Your task to perform on an android device: Show me the alarms in the clock app Image 0: 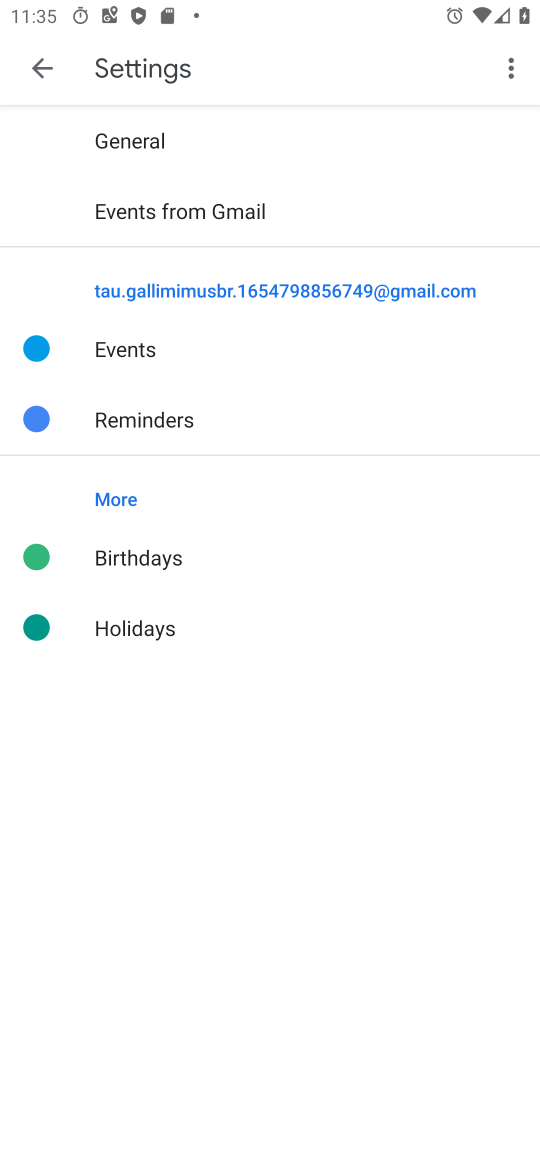
Step 0: press home button
Your task to perform on an android device: Show me the alarms in the clock app Image 1: 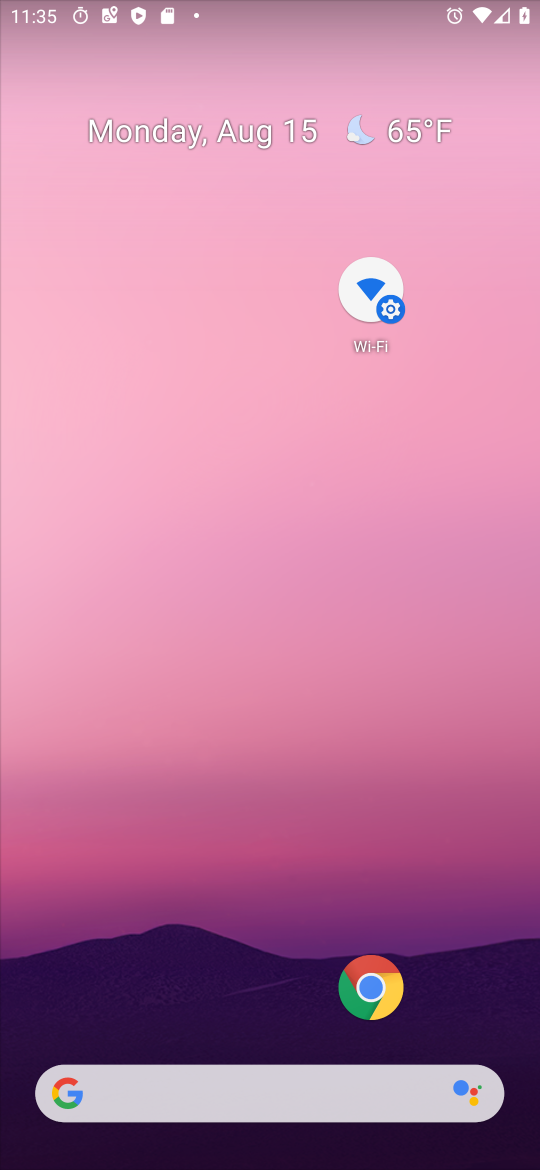
Step 1: drag from (349, 1069) to (250, 158)
Your task to perform on an android device: Show me the alarms in the clock app Image 2: 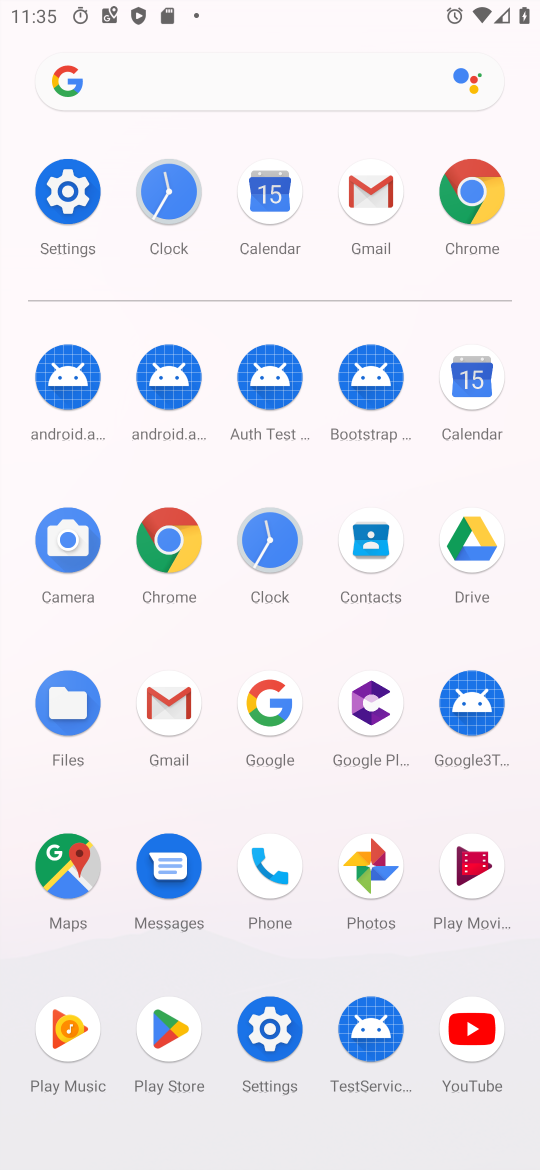
Step 2: click (254, 529)
Your task to perform on an android device: Show me the alarms in the clock app Image 3: 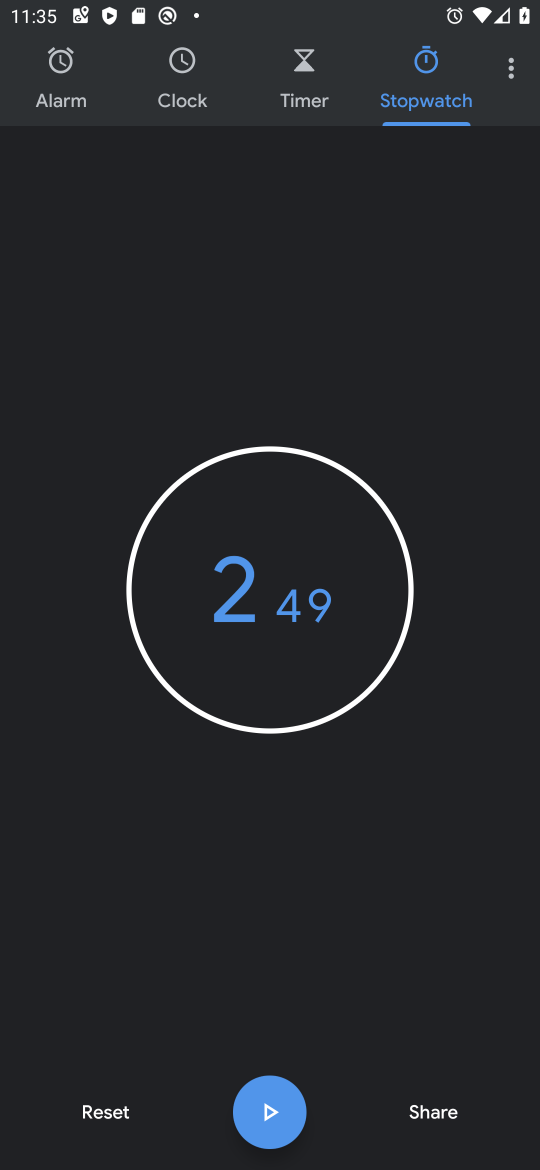
Step 3: click (169, 75)
Your task to perform on an android device: Show me the alarms in the clock app Image 4: 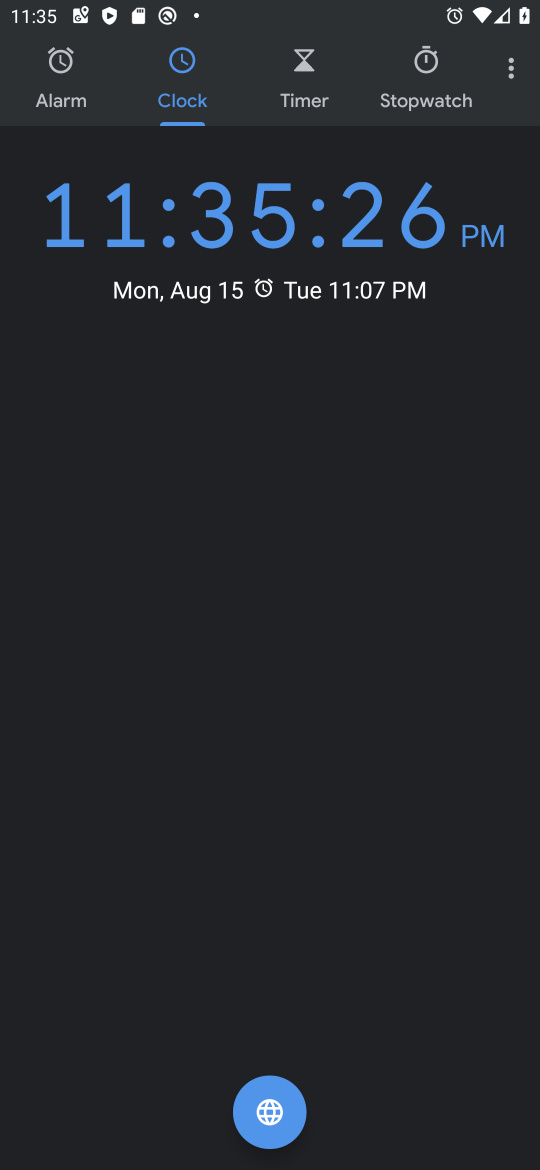
Step 4: click (71, 85)
Your task to perform on an android device: Show me the alarms in the clock app Image 5: 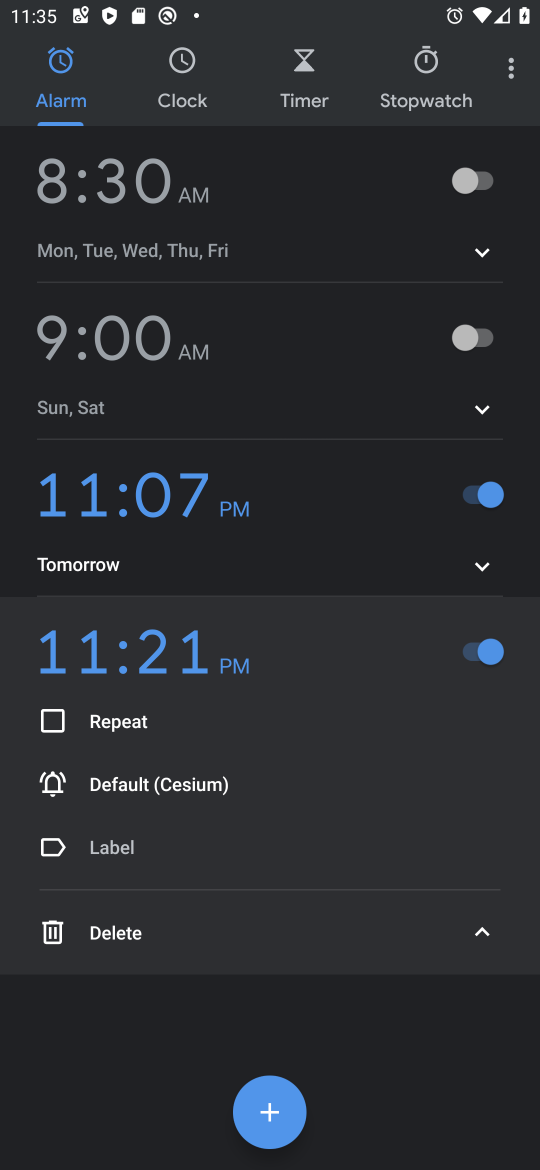
Step 5: task complete